Your task to perform on an android device: Open calendar and show me the fourth week of next month Image 0: 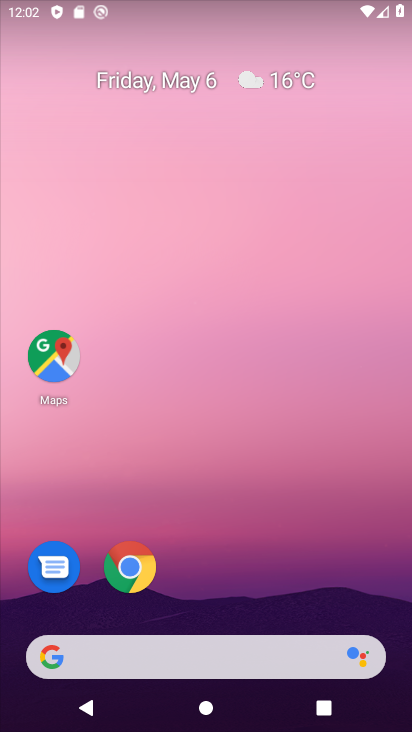
Step 0: drag from (262, 509) to (266, 119)
Your task to perform on an android device: Open calendar and show me the fourth week of next month Image 1: 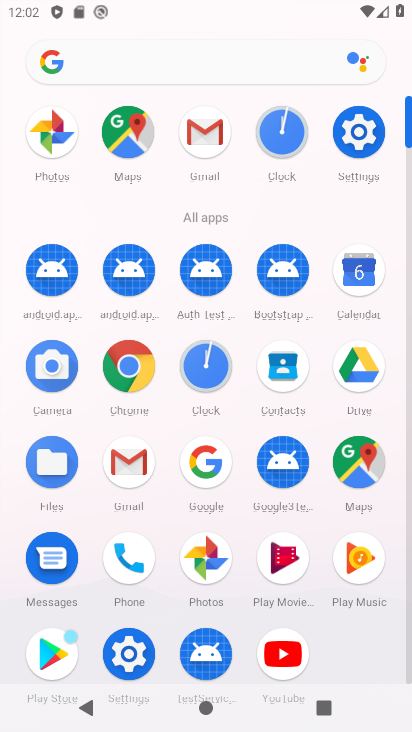
Step 1: click (349, 267)
Your task to perform on an android device: Open calendar and show me the fourth week of next month Image 2: 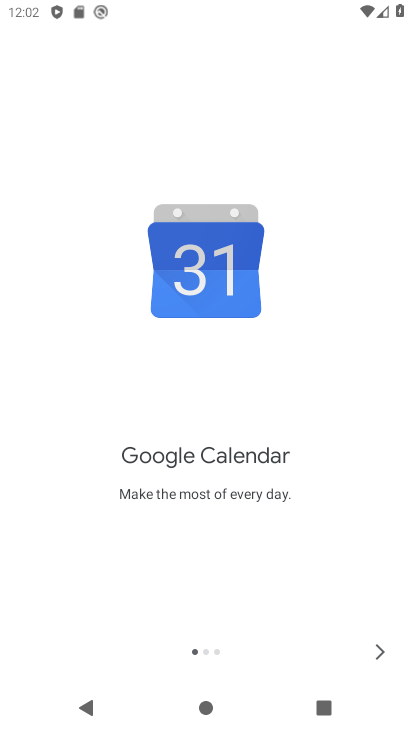
Step 2: click (383, 650)
Your task to perform on an android device: Open calendar and show me the fourth week of next month Image 3: 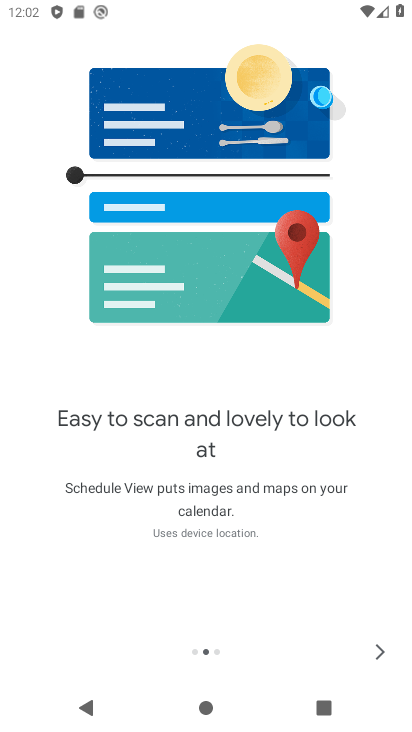
Step 3: click (370, 651)
Your task to perform on an android device: Open calendar and show me the fourth week of next month Image 4: 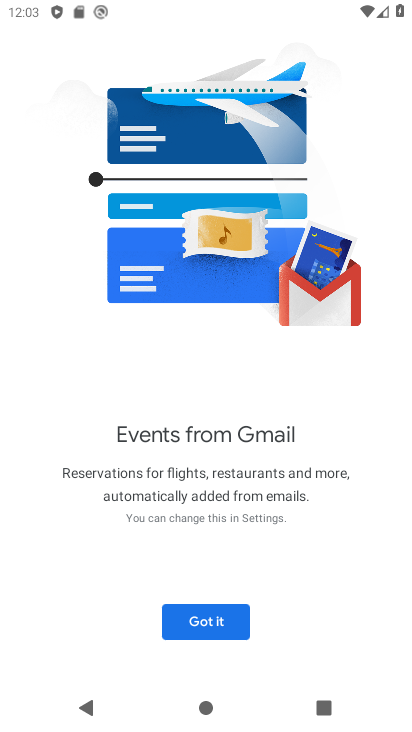
Step 4: click (208, 627)
Your task to perform on an android device: Open calendar and show me the fourth week of next month Image 5: 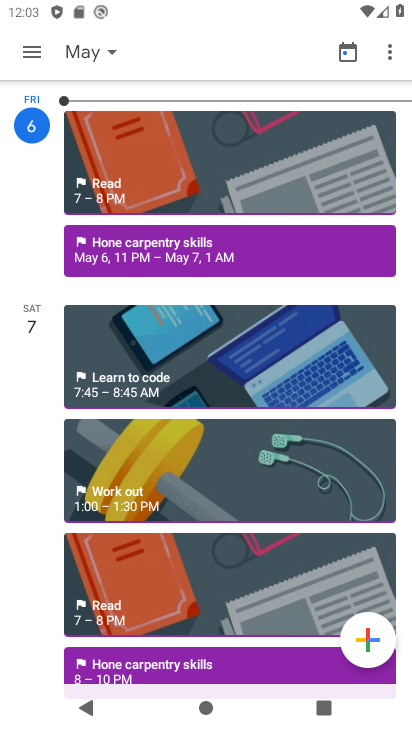
Step 5: click (65, 55)
Your task to perform on an android device: Open calendar and show me the fourth week of next month Image 6: 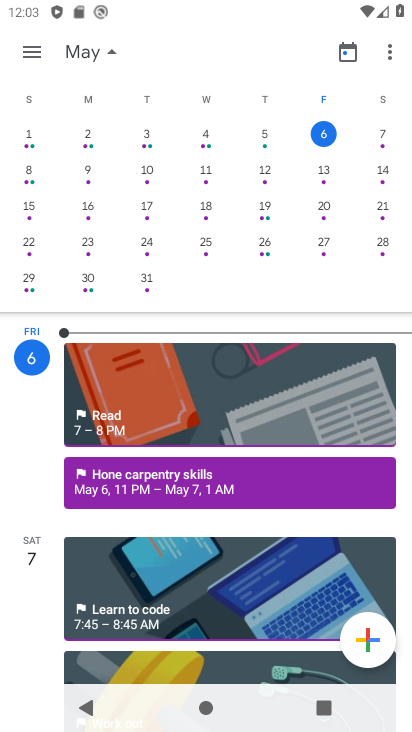
Step 6: drag from (324, 212) to (4, 127)
Your task to perform on an android device: Open calendar and show me the fourth week of next month Image 7: 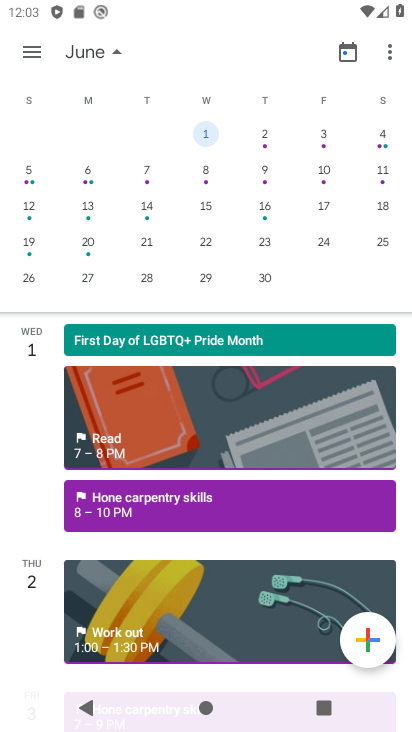
Step 7: click (150, 282)
Your task to perform on an android device: Open calendar and show me the fourth week of next month Image 8: 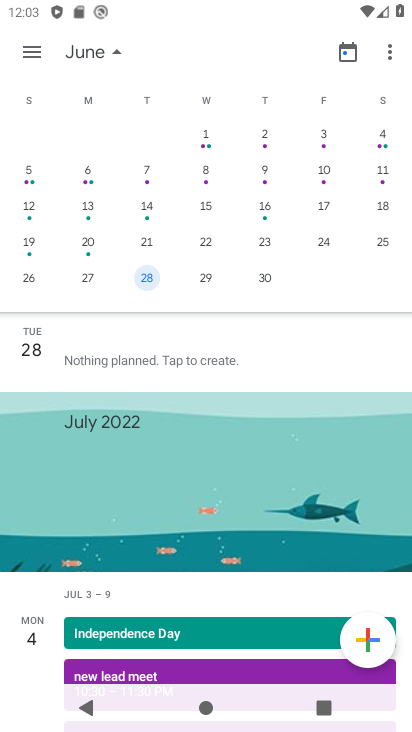
Step 8: task complete